Your task to perform on an android device: find which apps use the phone's location Image 0: 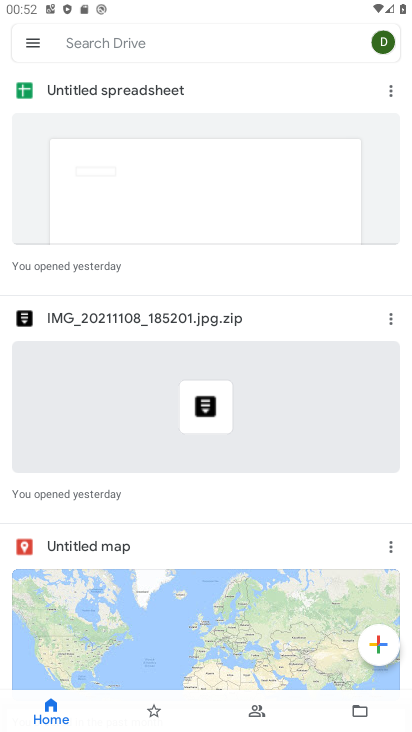
Step 0: press home button
Your task to perform on an android device: find which apps use the phone's location Image 1: 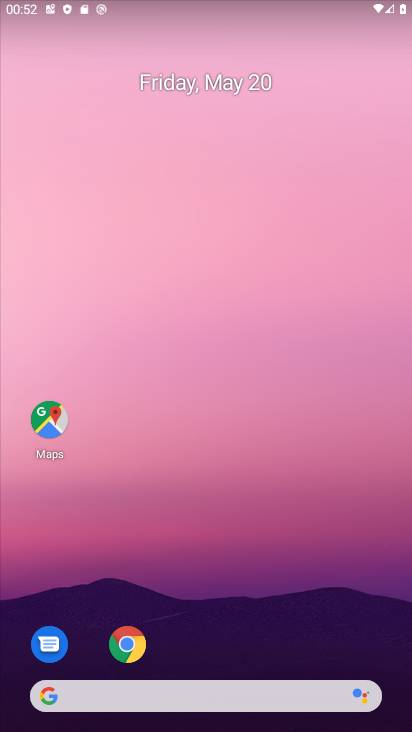
Step 1: drag from (342, 640) to (344, 0)
Your task to perform on an android device: find which apps use the phone's location Image 2: 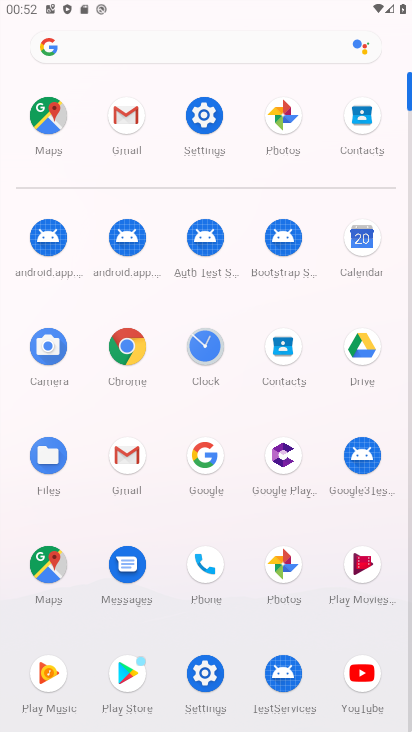
Step 2: click (200, 128)
Your task to perform on an android device: find which apps use the phone's location Image 3: 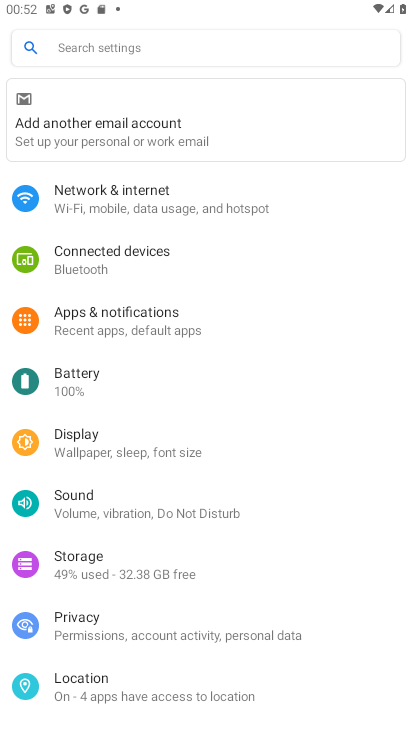
Step 3: click (95, 700)
Your task to perform on an android device: find which apps use the phone's location Image 4: 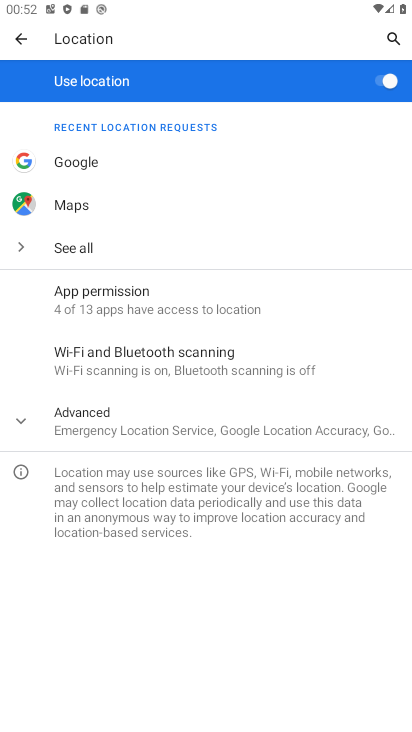
Step 4: click (92, 308)
Your task to perform on an android device: find which apps use the phone's location Image 5: 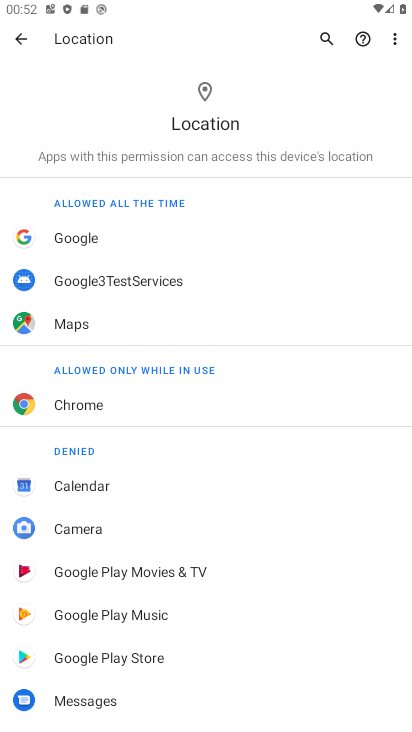
Step 5: task complete